Your task to perform on an android device: change the upload size in google photos Image 0: 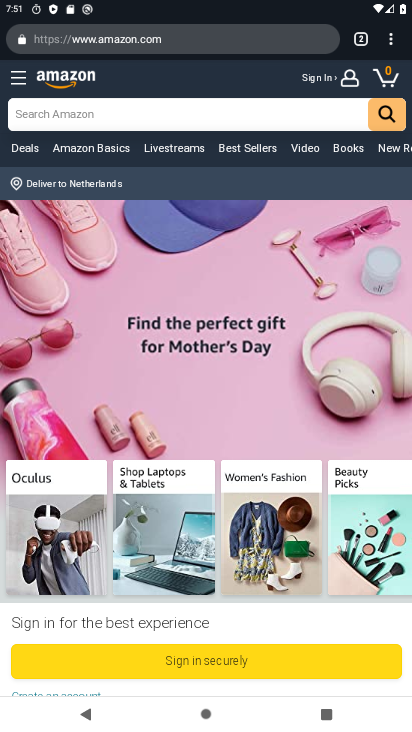
Step 0: press home button
Your task to perform on an android device: change the upload size in google photos Image 1: 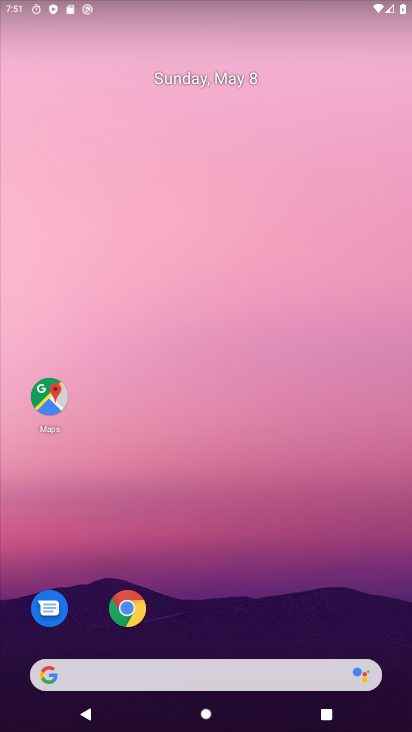
Step 1: drag from (222, 589) to (280, 132)
Your task to perform on an android device: change the upload size in google photos Image 2: 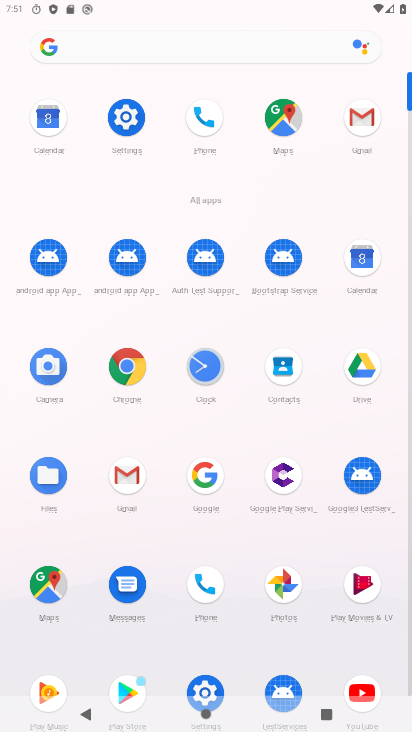
Step 2: click (280, 593)
Your task to perform on an android device: change the upload size in google photos Image 3: 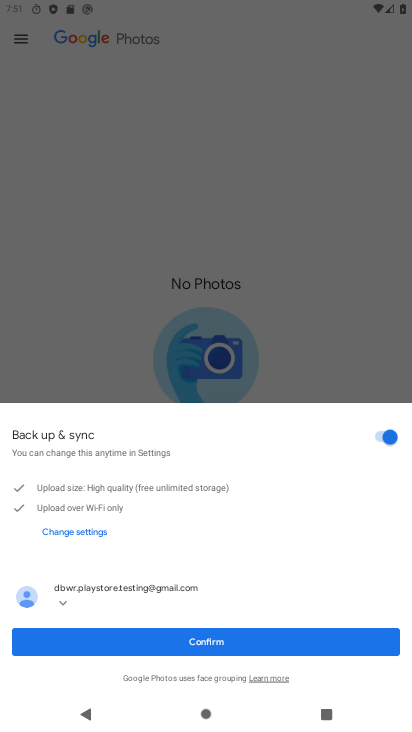
Step 3: click (279, 644)
Your task to perform on an android device: change the upload size in google photos Image 4: 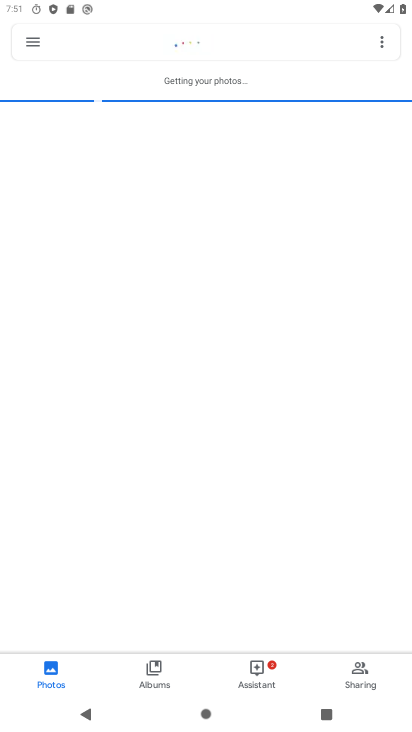
Step 4: click (380, 50)
Your task to perform on an android device: change the upload size in google photos Image 5: 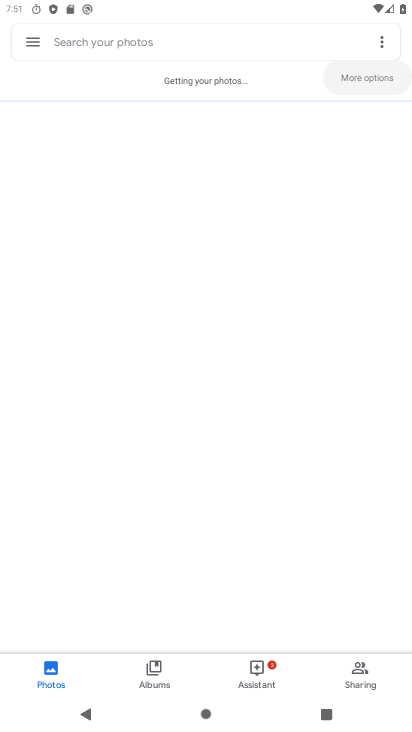
Step 5: click (380, 45)
Your task to perform on an android device: change the upload size in google photos Image 6: 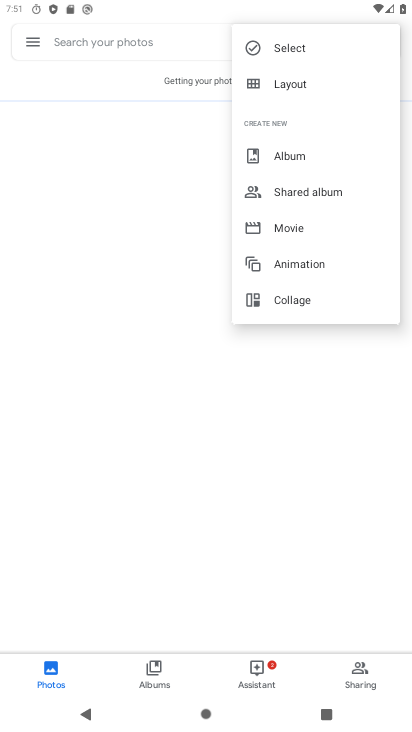
Step 6: click (29, 43)
Your task to perform on an android device: change the upload size in google photos Image 7: 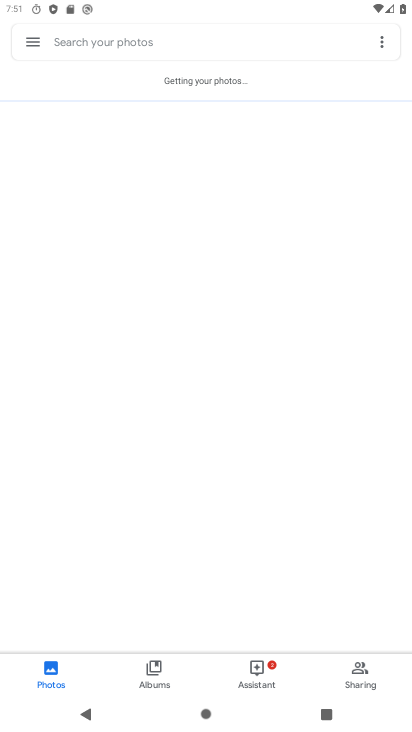
Step 7: click (35, 45)
Your task to perform on an android device: change the upload size in google photos Image 8: 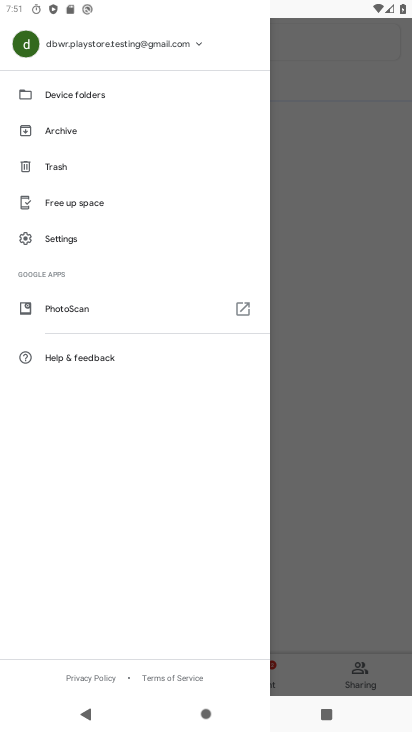
Step 8: click (90, 244)
Your task to perform on an android device: change the upload size in google photos Image 9: 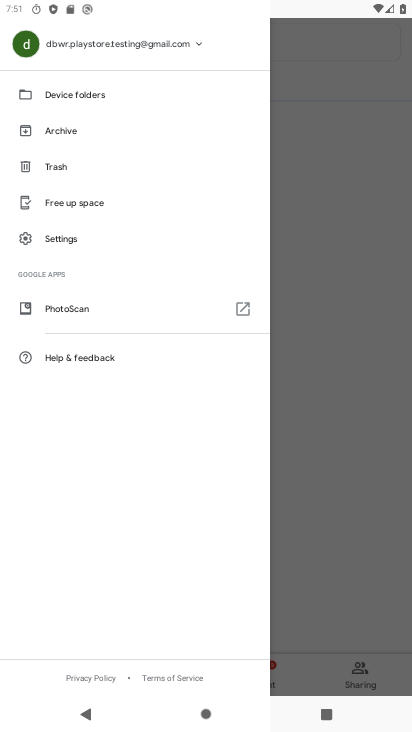
Step 9: click (58, 241)
Your task to perform on an android device: change the upload size in google photos Image 10: 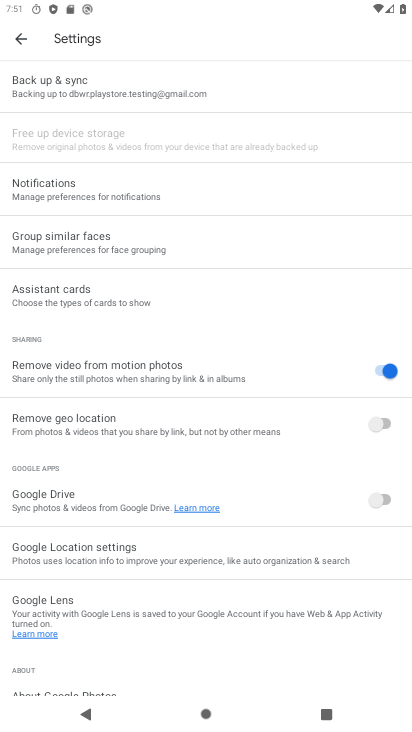
Step 10: click (101, 95)
Your task to perform on an android device: change the upload size in google photos Image 11: 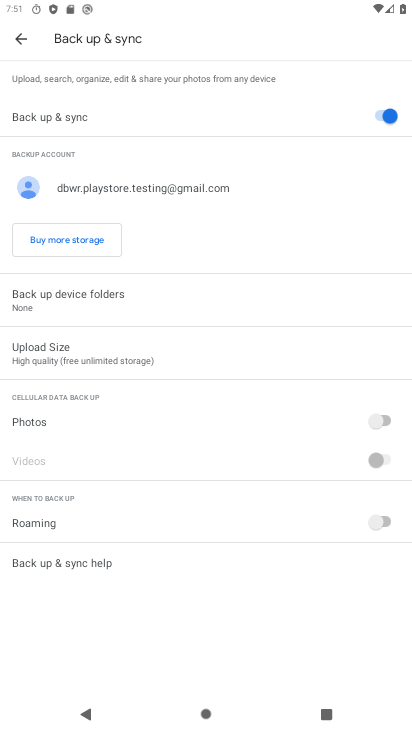
Step 11: click (133, 362)
Your task to perform on an android device: change the upload size in google photos Image 12: 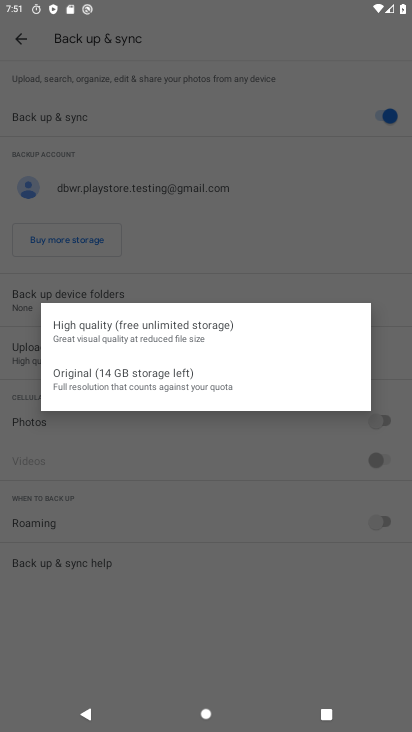
Step 12: click (152, 385)
Your task to perform on an android device: change the upload size in google photos Image 13: 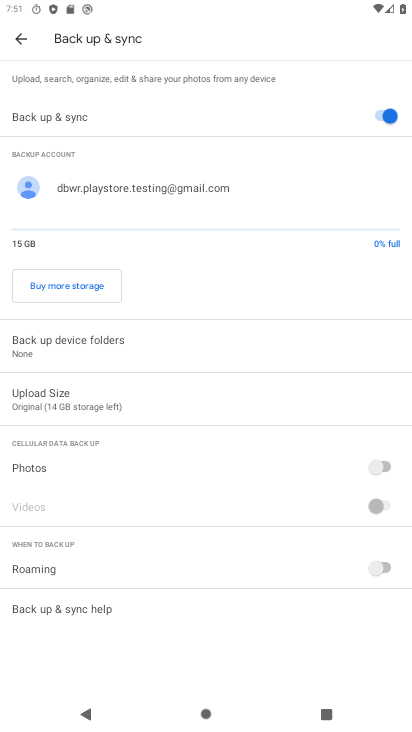
Step 13: task complete